Your task to perform on an android device: Look up the top rated 18v miter saw on Home Depot. Image 0: 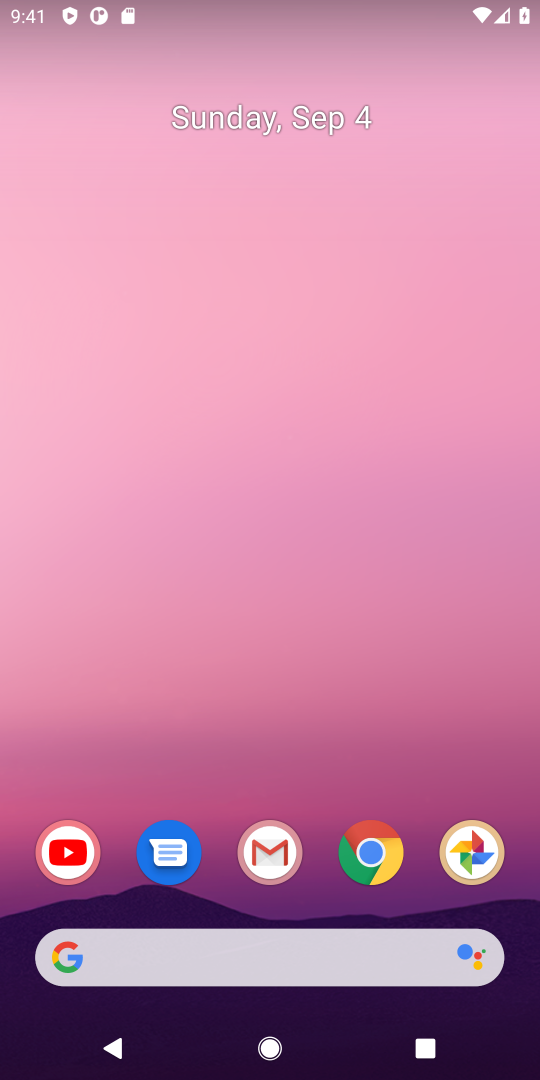
Step 0: click (157, 33)
Your task to perform on an android device: Look up the top rated 18v miter saw on Home Depot. Image 1: 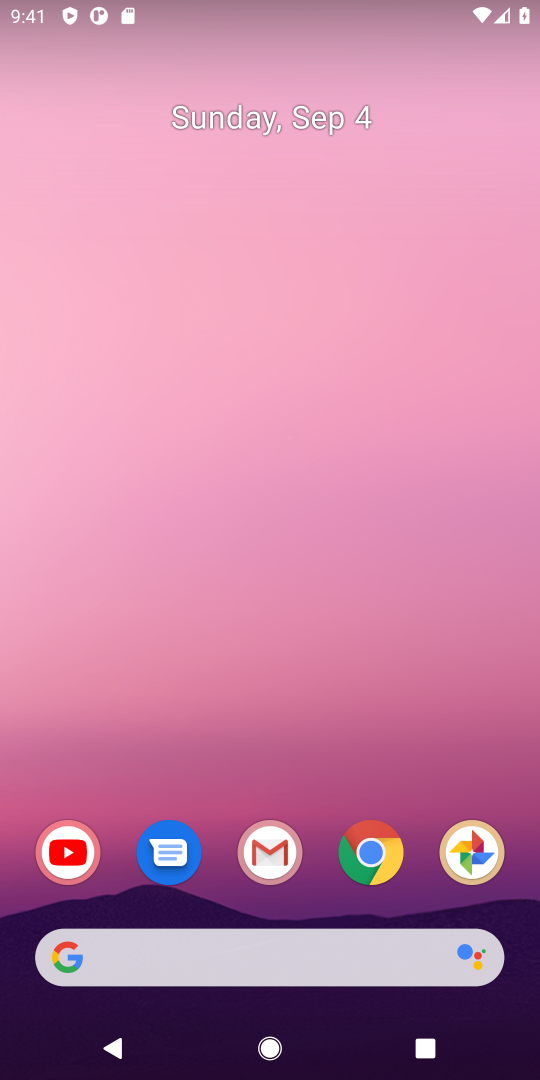
Step 1: drag from (424, 874) to (215, 58)
Your task to perform on an android device: Look up the top rated 18v miter saw on Home Depot. Image 2: 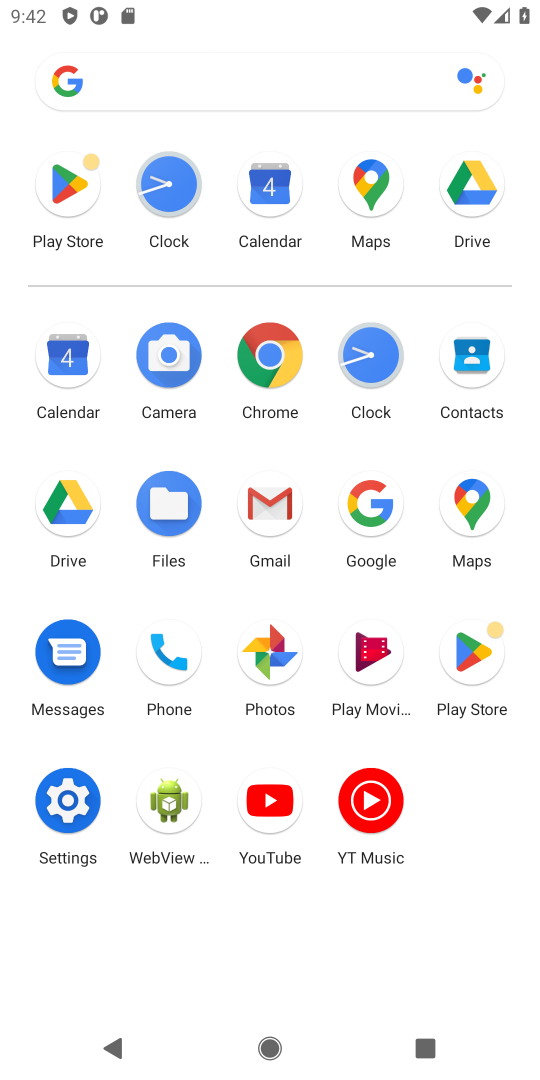
Step 2: click (388, 523)
Your task to perform on an android device: Look up the top rated 18v miter saw on Home Depot. Image 3: 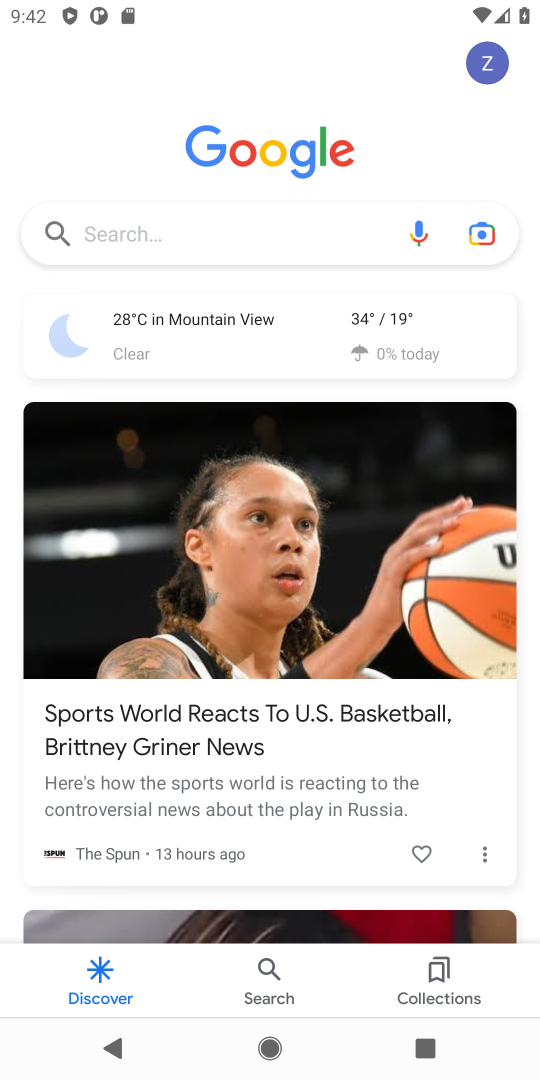
Step 3: click (106, 220)
Your task to perform on an android device: Look up the top rated 18v miter saw on Home Depot. Image 4: 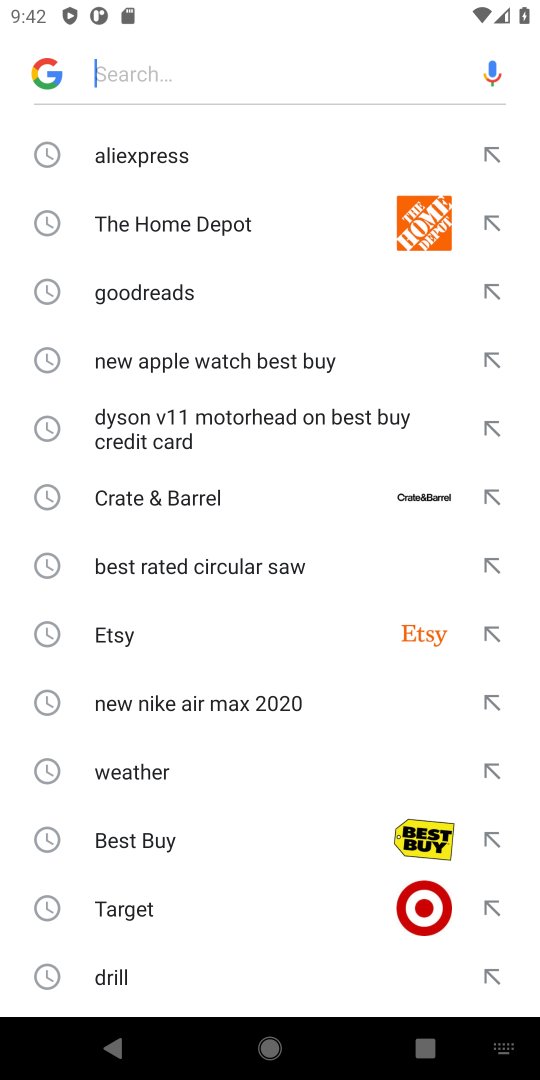
Step 4: click (142, 232)
Your task to perform on an android device: Look up the top rated 18v miter saw on Home Depot. Image 5: 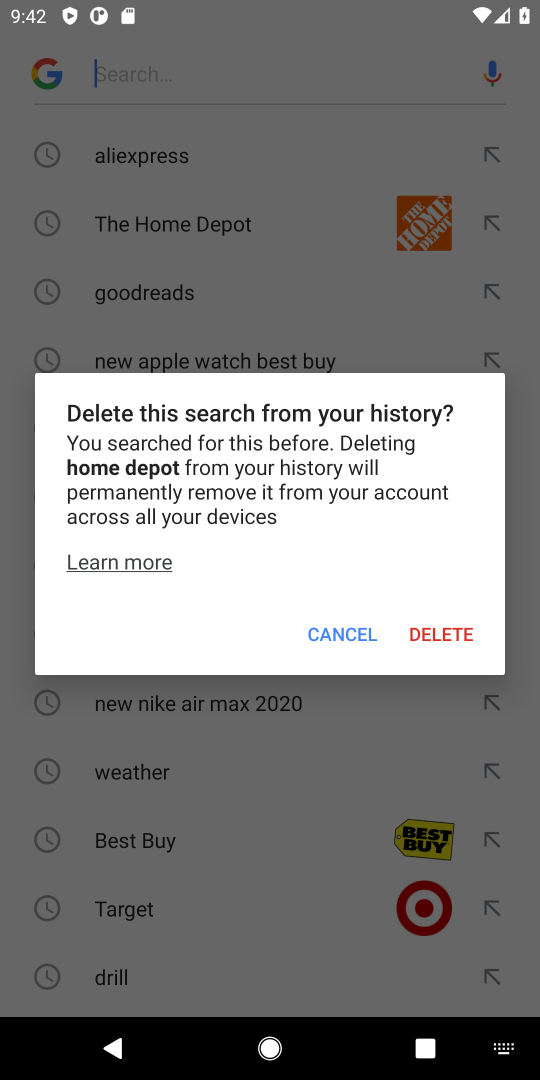
Step 5: click (359, 636)
Your task to perform on an android device: Look up the top rated 18v miter saw on Home Depot. Image 6: 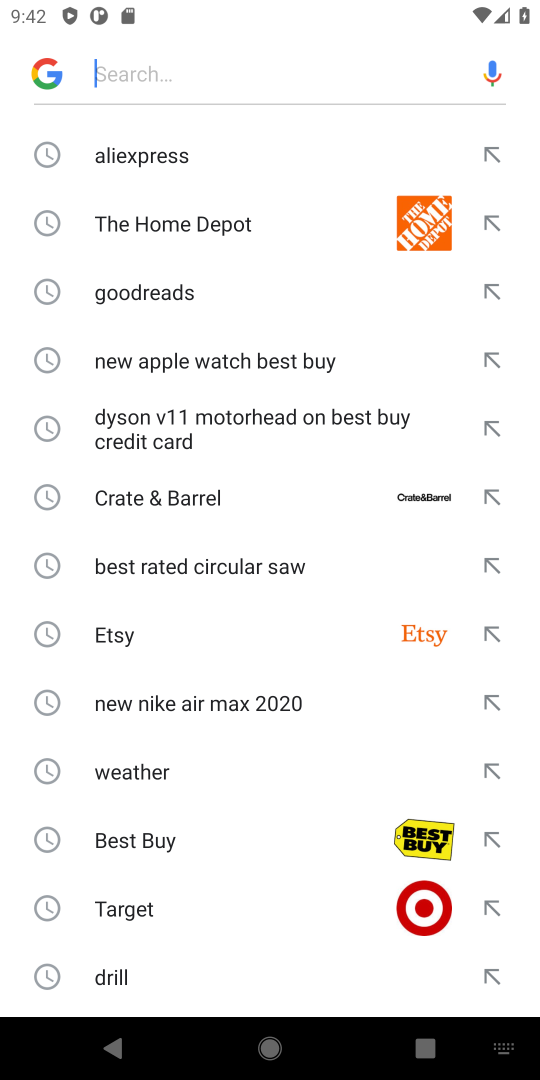
Step 6: click (223, 217)
Your task to perform on an android device: Look up the top rated 18v miter saw on Home Depot. Image 7: 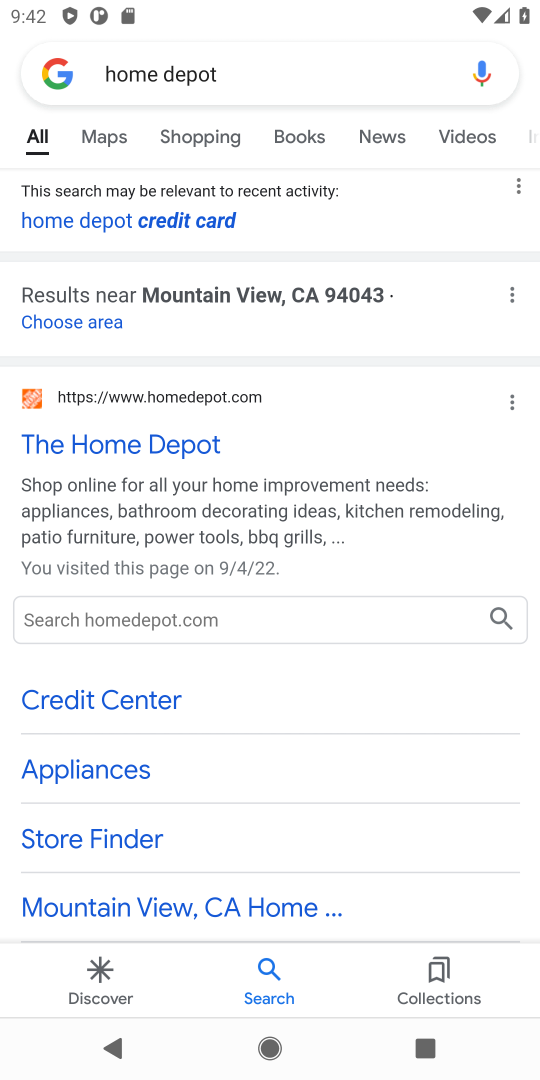
Step 7: click (158, 425)
Your task to perform on an android device: Look up the top rated 18v miter saw on Home Depot. Image 8: 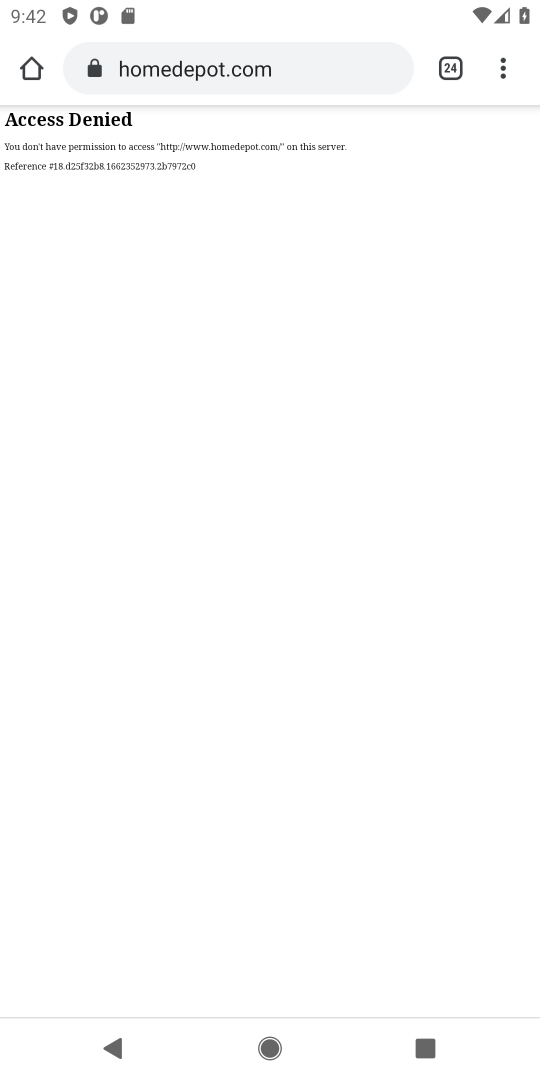
Step 8: task complete